Your task to perform on an android device: Go to Android settings Image 0: 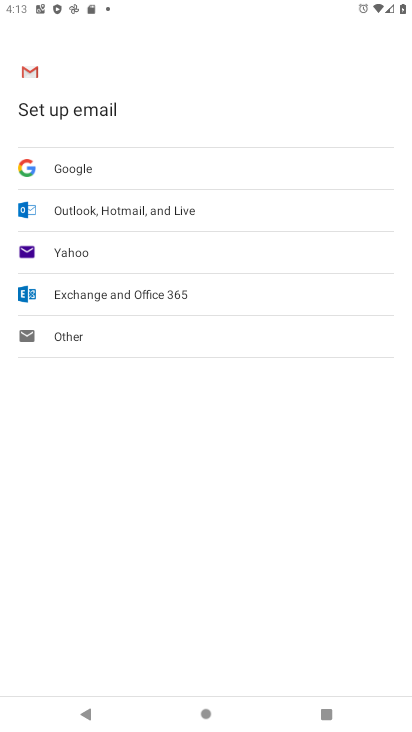
Step 0: click (209, 702)
Your task to perform on an android device: Go to Android settings Image 1: 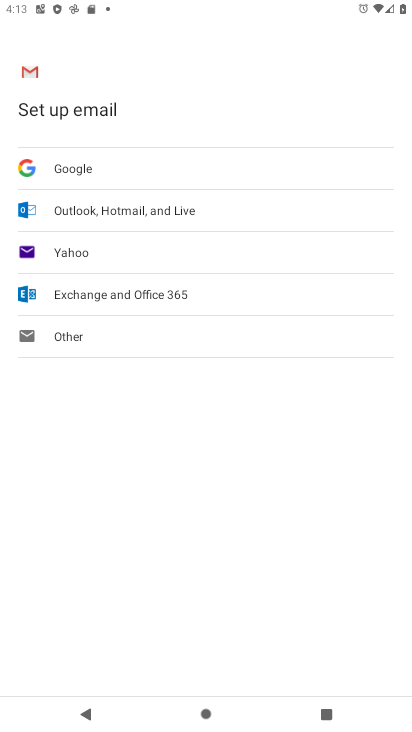
Step 1: click (204, 708)
Your task to perform on an android device: Go to Android settings Image 2: 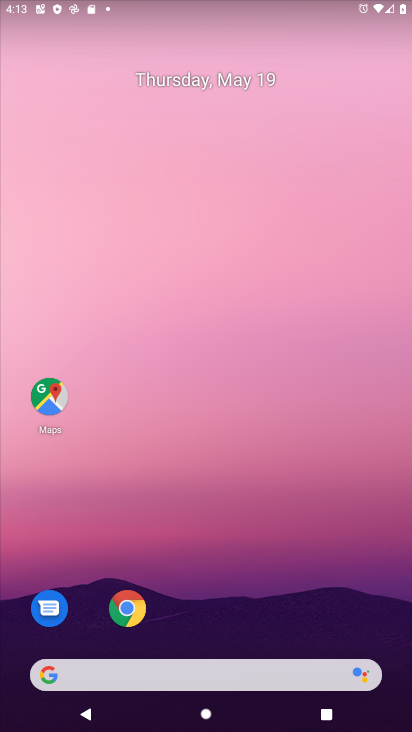
Step 2: drag from (229, 632) to (238, 126)
Your task to perform on an android device: Go to Android settings Image 3: 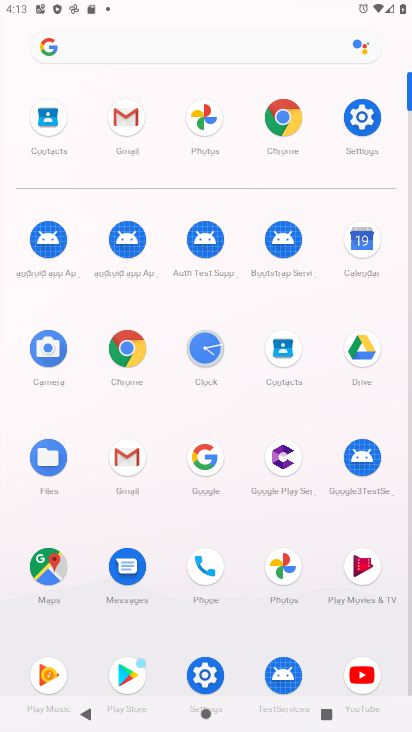
Step 3: click (356, 141)
Your task to perform on an android device: Go to Android settings Image 4: 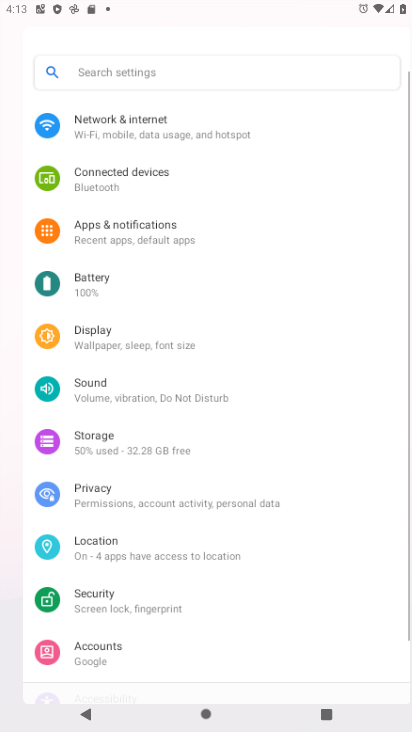
Step 4: click (356, 141)
Your task to perform on an android device: Go to Android settings Image 5: 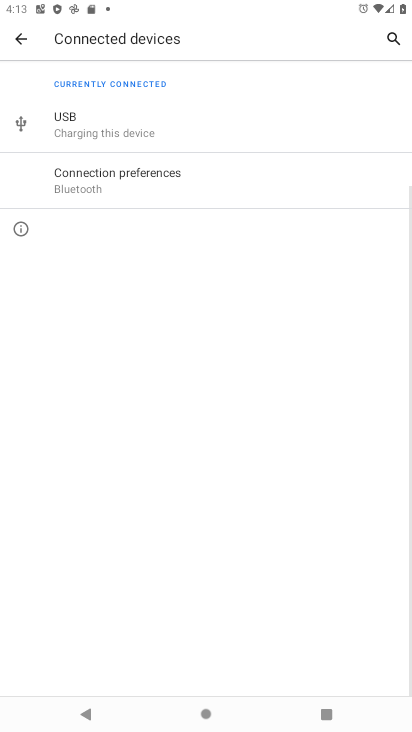
Step 5: task complete